Your task to perform on an android device: turn notification dots on Image 0: 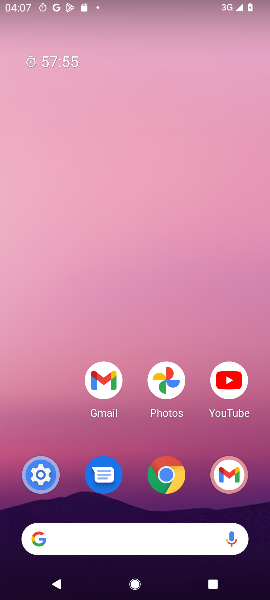
Step 0: press home button
Your task to perform on an android device: turn notification dots on Image 1: 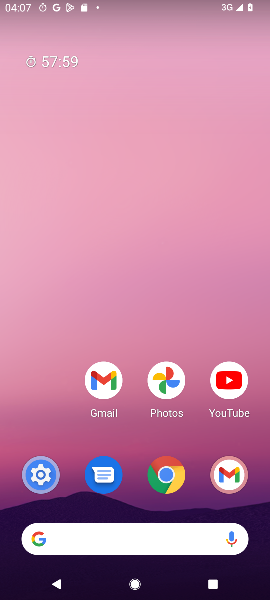
Step 1: drag from (52, 420) to (46, 205)
Your task to perform on an android device: turn notification dots on Image 2: 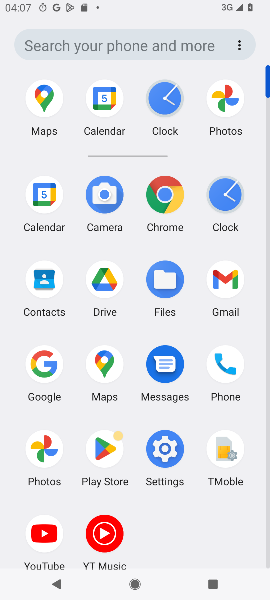
Step 2: click (170, 448)
Your task to perform on an android device: turn notification dots on Image 3: 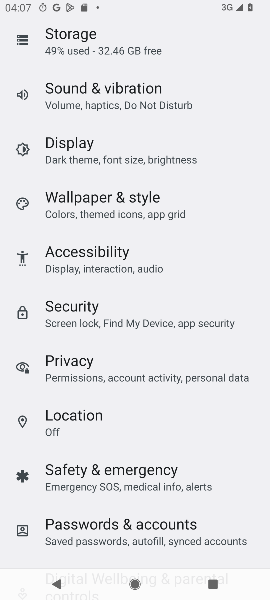
Step 3: drag from (231, 203) to (241, 326)
Your task to perform on an android device: turn notification dots on Image 4: 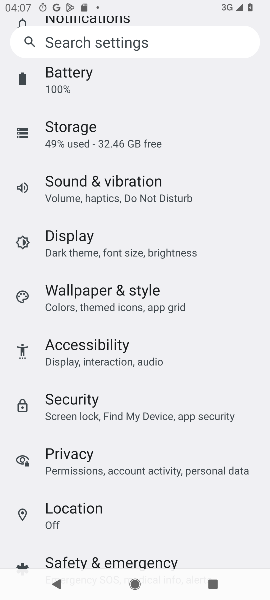
Step 4: drag from (227, 182) to (228, 284)
Your task to perform on an android device: turn notification dots on Image 5: 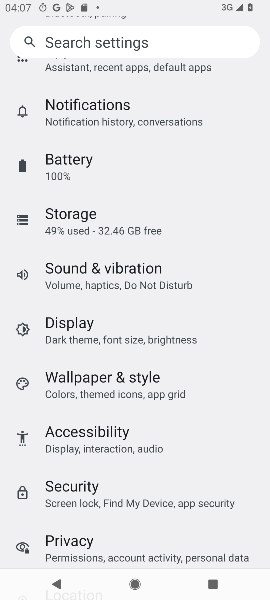
Step 5: drag from (220, 159) to (225, 247)
Your task to perform on an android device: turn notification dots on Image 6: 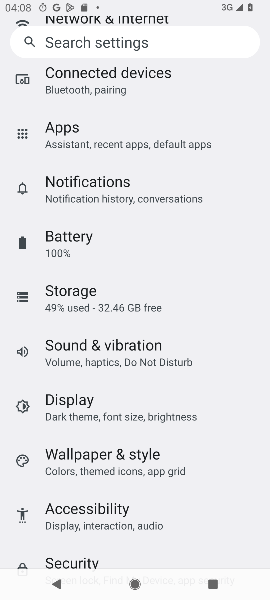
Step 6: drag from (234, 160) to (237, 265)
Your task to perform on an android device: turn notification dots on Image 7: 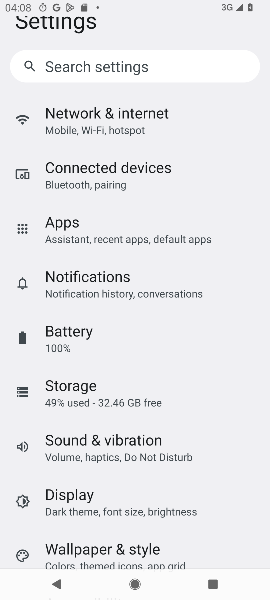
Step 7: drag from (228, 152) to (232, 287)
Your task to perform on an android device: turn notification dots on Image 8: 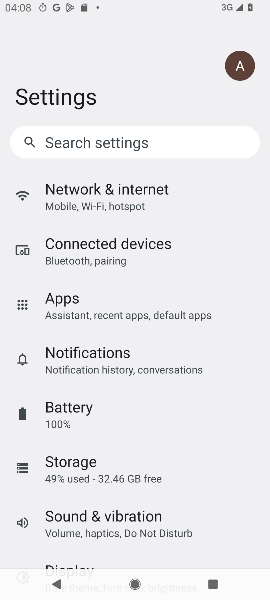
Step 8: drag from (224, 349) to (229, 271)
Your task to perform on an android device: turn notification dots on Image 9: 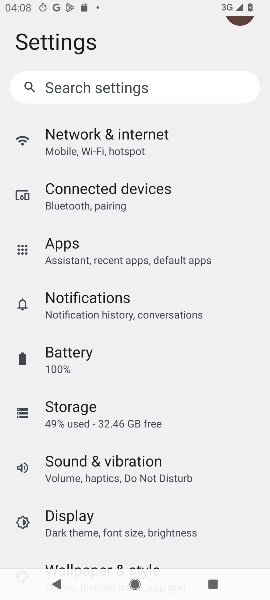
Step 9: click (181, 310)
Your task to perform on an android device: turn notification dots on Image 10: 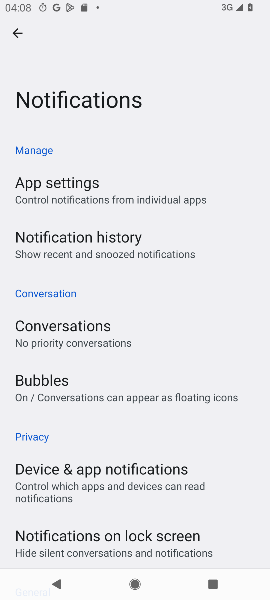
Step 10: task complete